Your task to perform on an android device: When is my next appointment? Image 0: 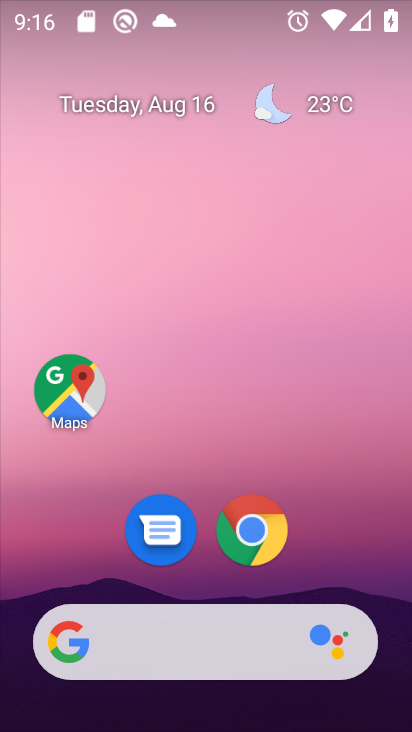
Step 0: drag from (309, 534) to (314, 306)
Your task to perform on an android device: When is my next appointment? Image 1: 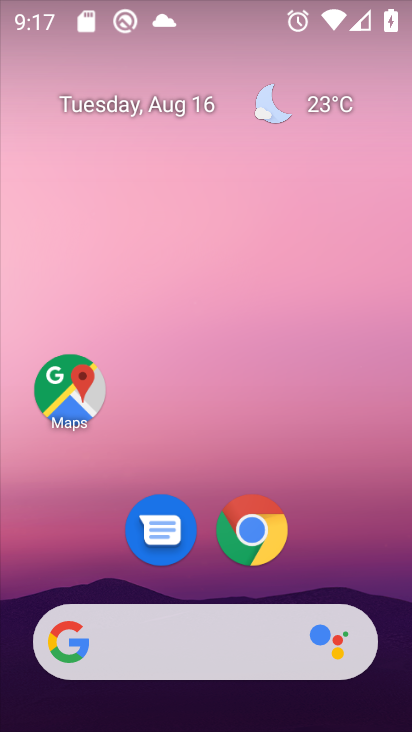
Step 1: click (162, 108)
Your task to perform on an android device: When is my next appointment? Image 2: 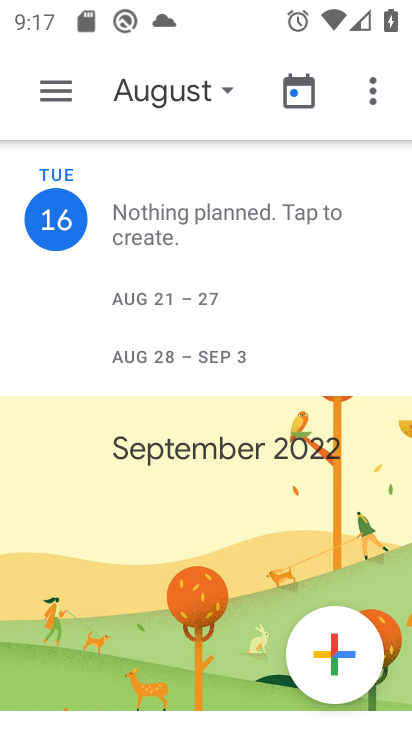
Step 2: click (210, 80)
Your task to perform on an android device: When is my next appointment? Image 3: 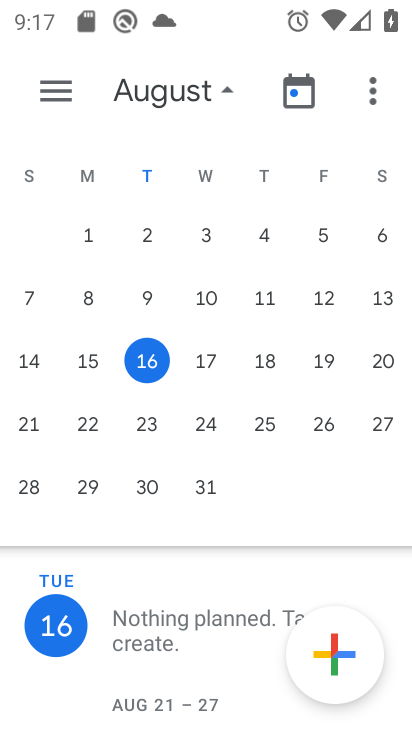
Step 3: click (216, 371)
Your task to perform on an android device: When is my next appointment? Image 4: 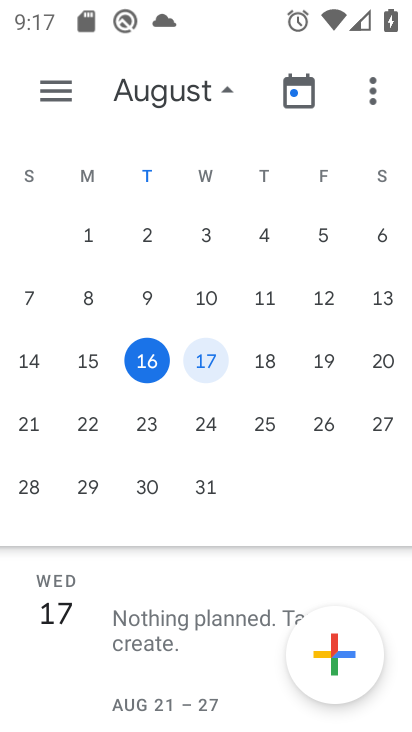
Step 4: task complete